Your task to perform on an android device: toggle improve location accuracy Image 0: 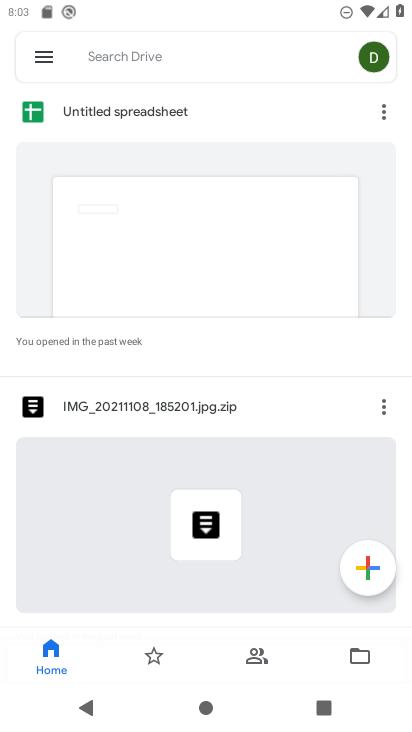
Step 0: press back button
Your task to perform on an android device: toggle improve location accuracy Image 1: 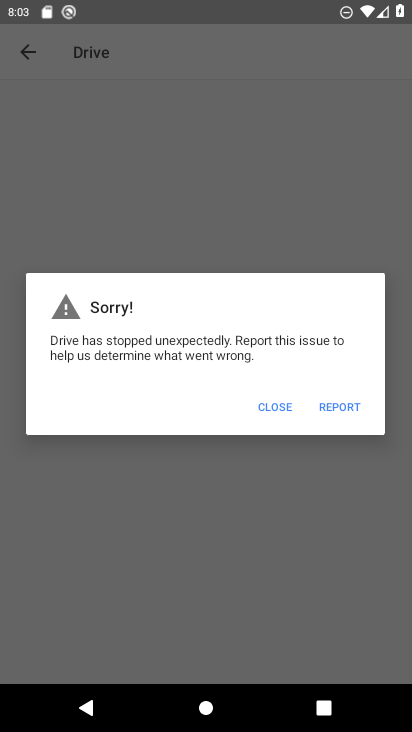
Step 1: press home button
Your task to perform on an android device: toggle improve location accuracy Image 2: 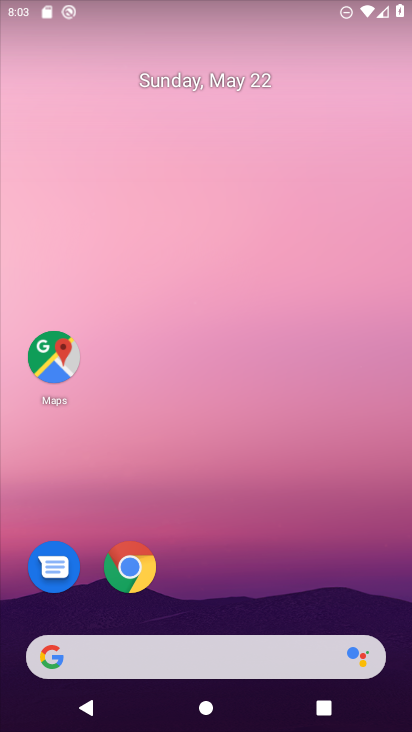
Step 2: drag from (224, 598) to (341, 25)
Your task to perform on an android device: toggle improve location accuracy Image 3: 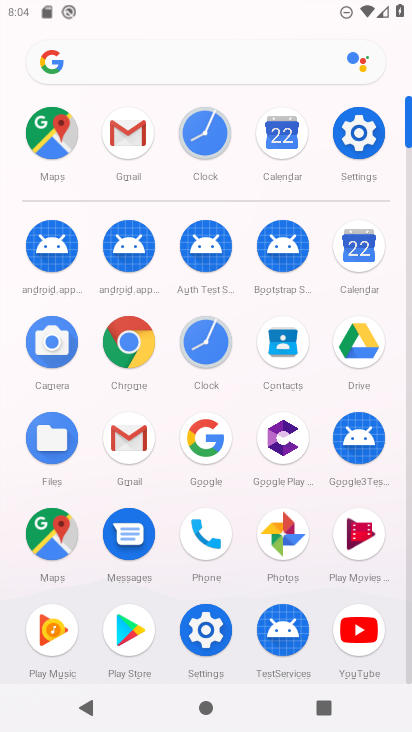
Step 3: click (347, 125)
Your task to perform on an android device: toggle improve location accuracy Image 4: 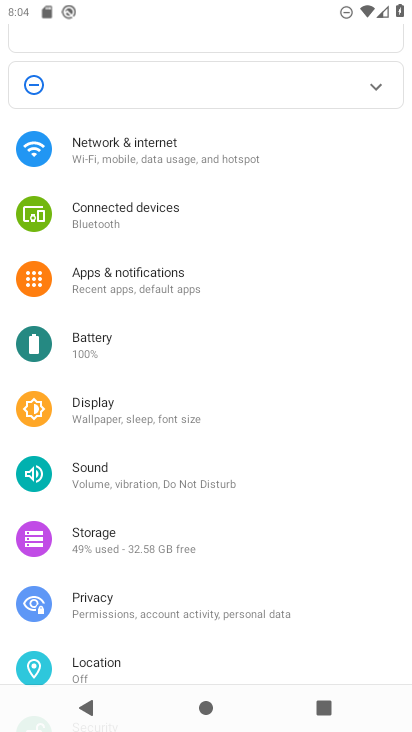
Step 4: click (100, 668)
Your task to perform on an android device: toggle improve location accuracy Image 5: 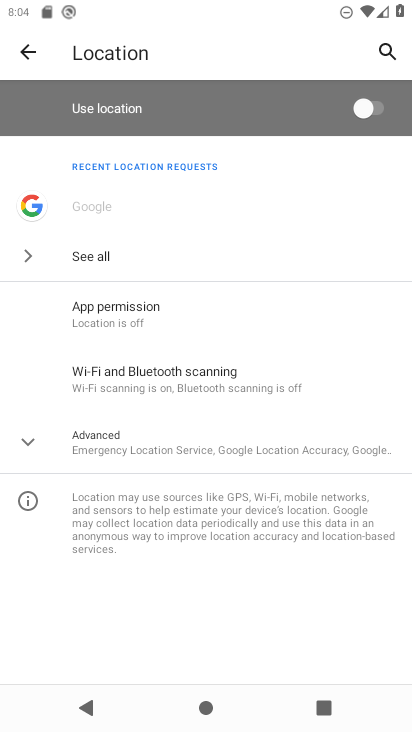
Step 5: click (139, 430)
Your task to perform on an android device: toggle improve location accuracy Image 6: 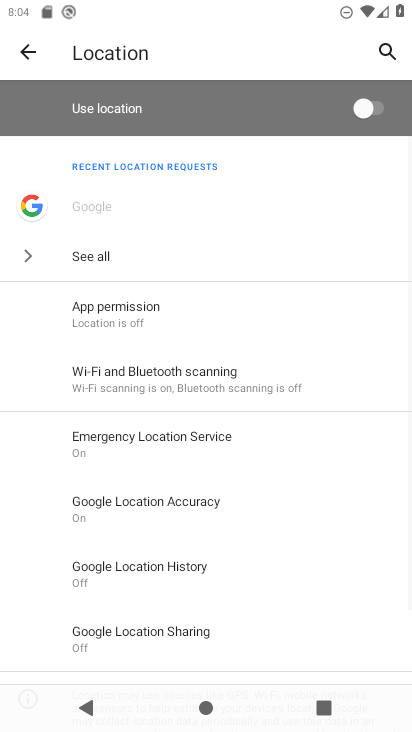
Step 6: click (165, 507)
Your task to perform on an android device: toggle improve location accuracy Image 7: 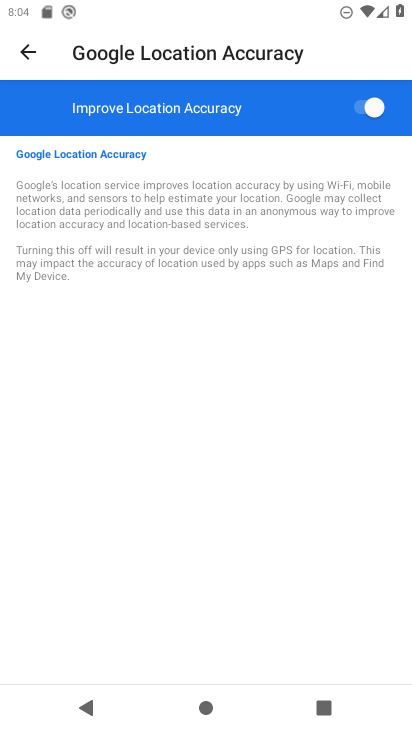
Step 7: click (358, 104)
Your task to perform on an android device: toggle improve location accuracy Image 8: 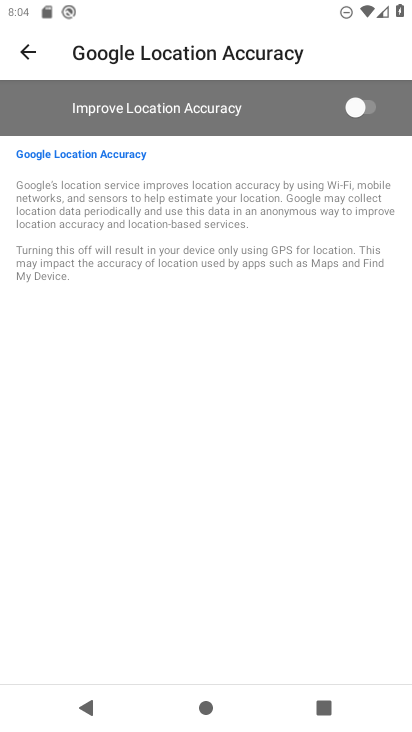
Step 8: task complete